Your task to perform on an android device: install app "Microsoft Authenticator" Image 0: 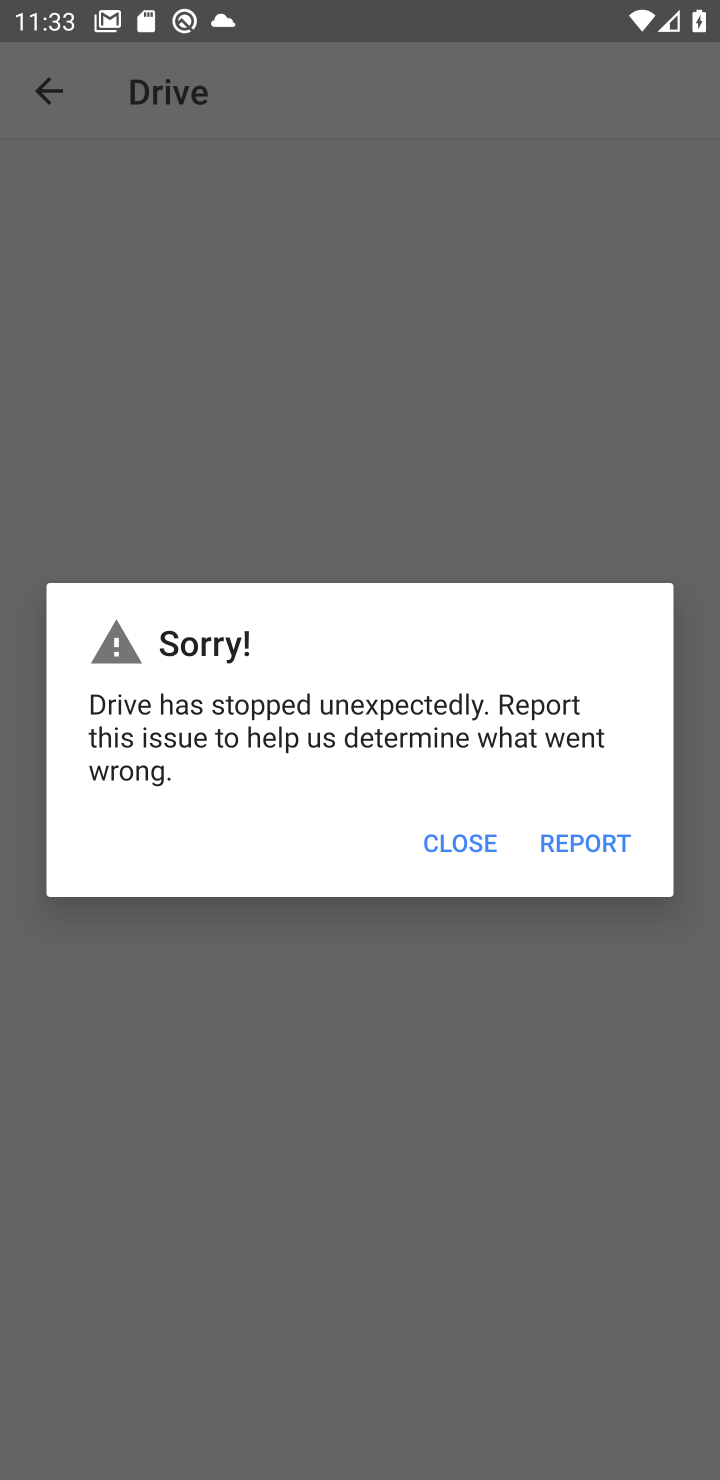
Step 0: press home button
Your task to perform on an android device: install app "Microsoft Authenticator" Image 1: 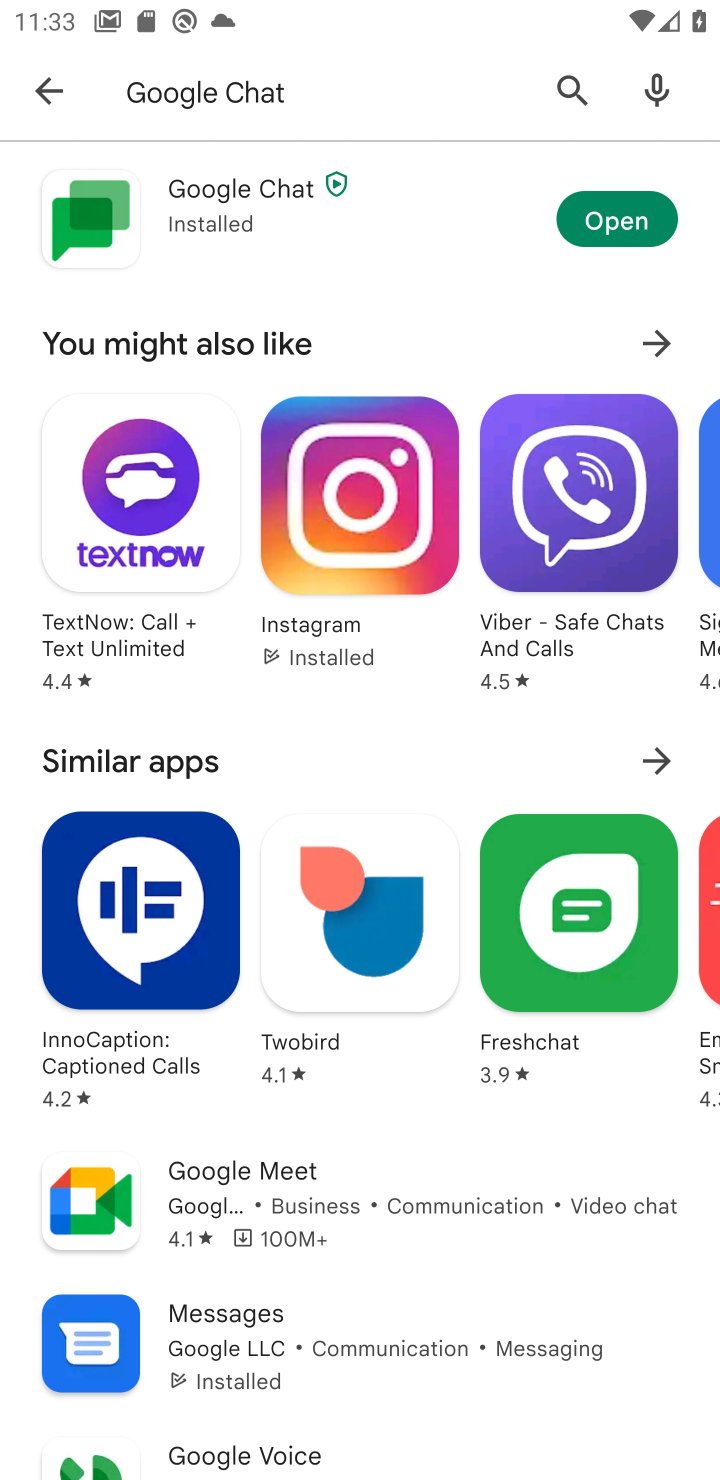
Step 1: press home button
Your task to perform on an android device: install app "Microsoft Authenticator" Image 2: 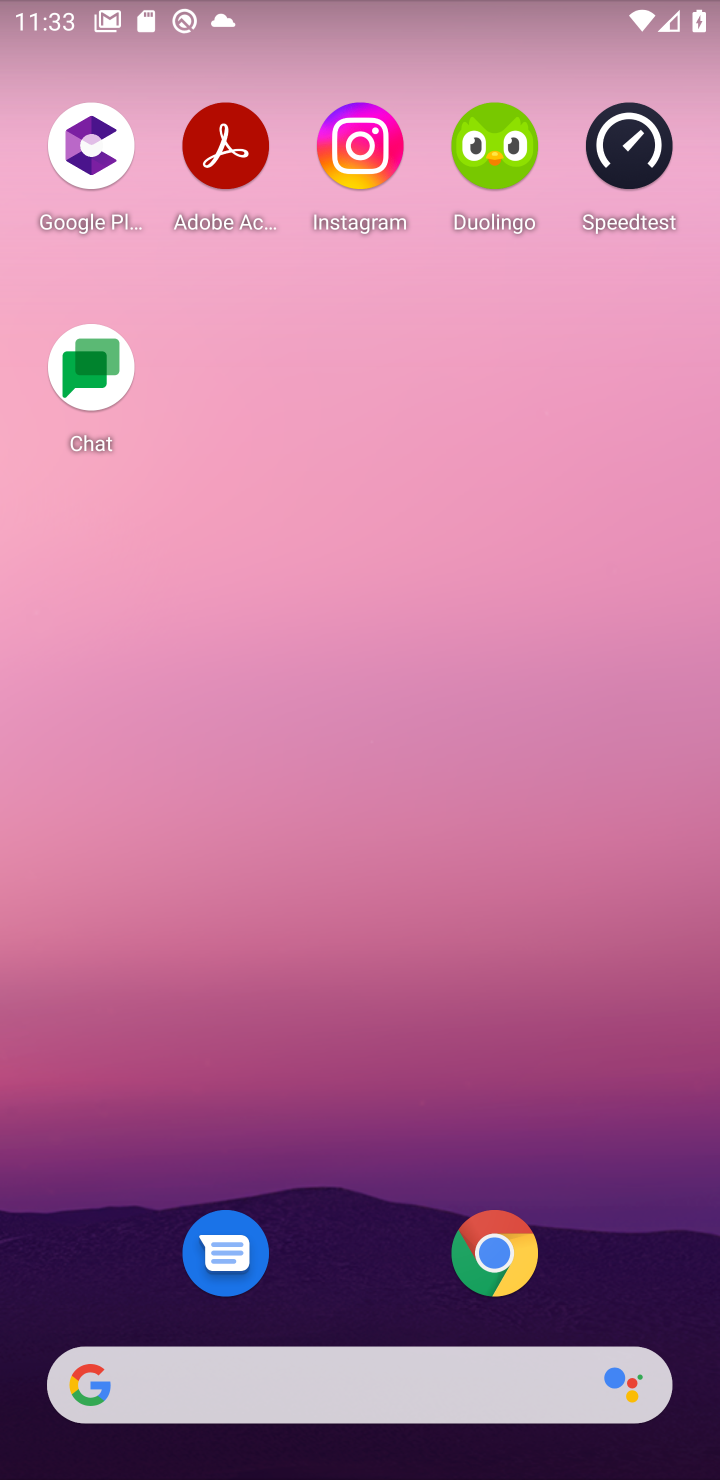
Step 2: press home button
Your task to perform on an android device: install app "Microsoft Authenticator" Image 3: 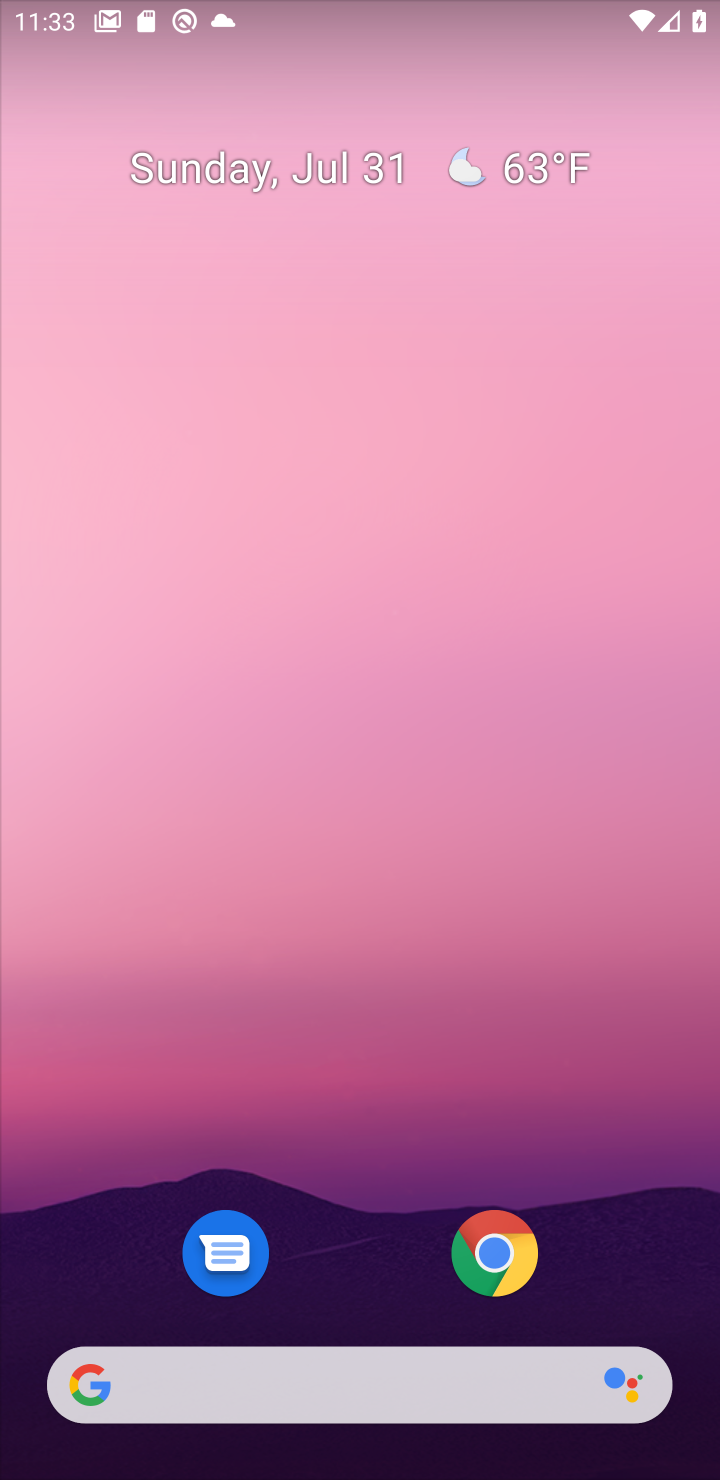
Step 3: drag from (340, 1217) to (435, 131)
Your task to perform on an android device: install app "Microsoft Authenticator" Image 4: 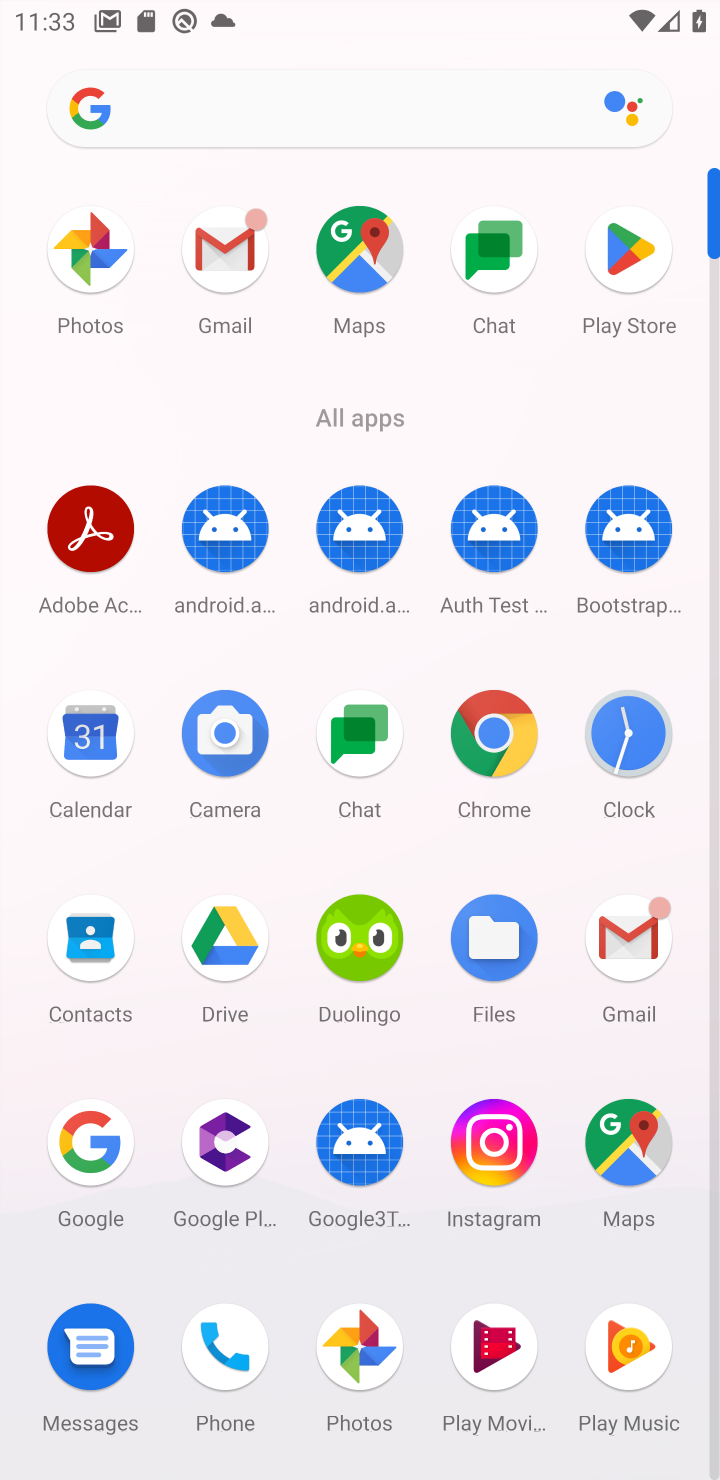
Step 4: click (632, 258)
Your task to perform on an android device: install app "Microsoft Authenticator" Image 5: 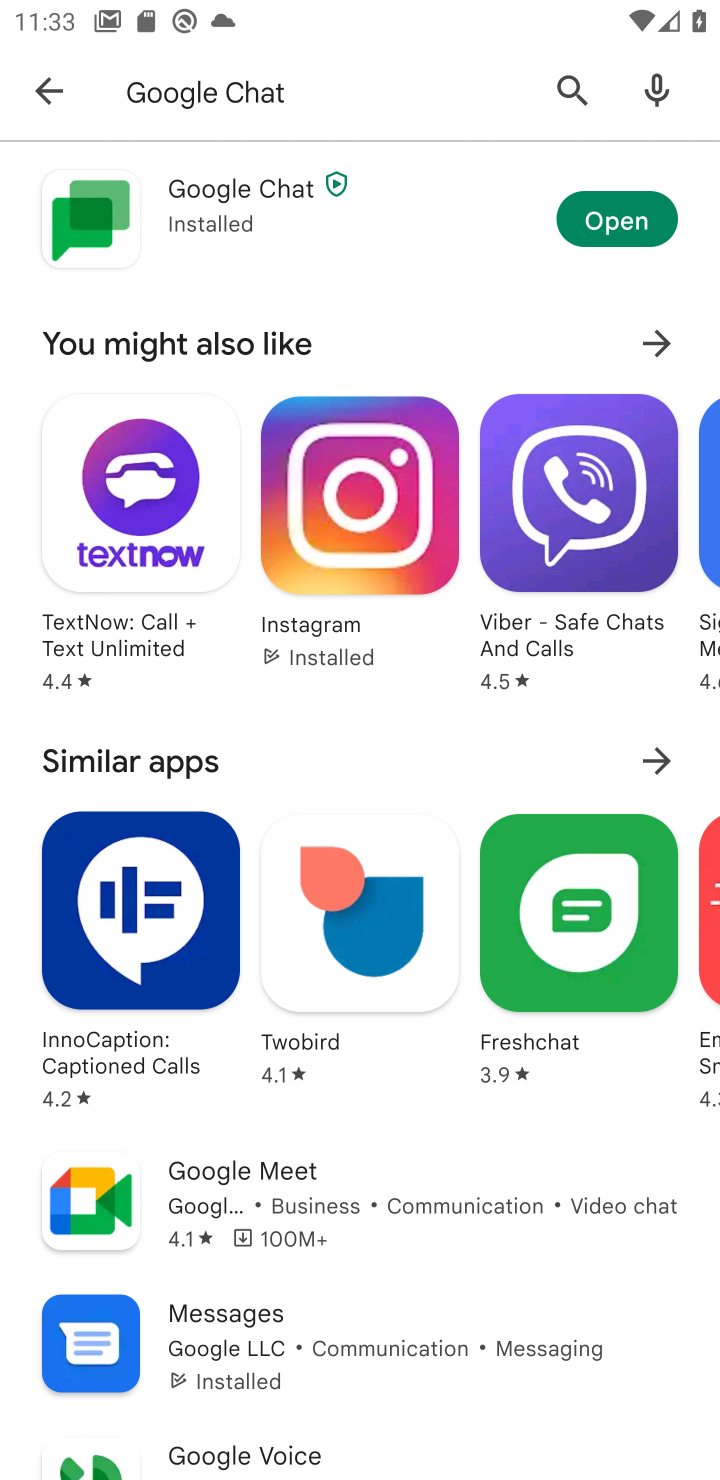
Step 5: click (392, 105)
Your task to perform on an android device: install app "Microsoft Authenticator" Image 6: 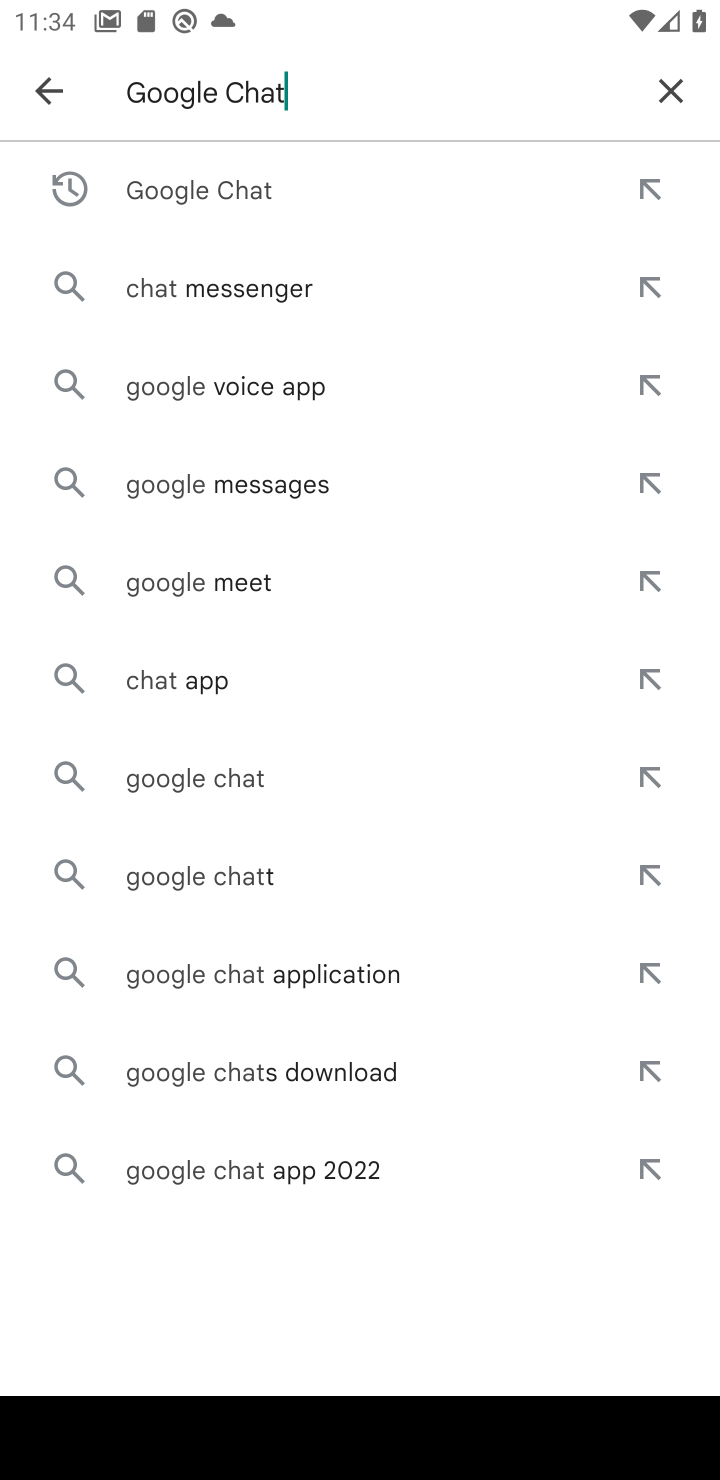
Step 6: click (664, 89)
Your task to perform on an android device: install app "Microsoft Authenticator" Image 7: 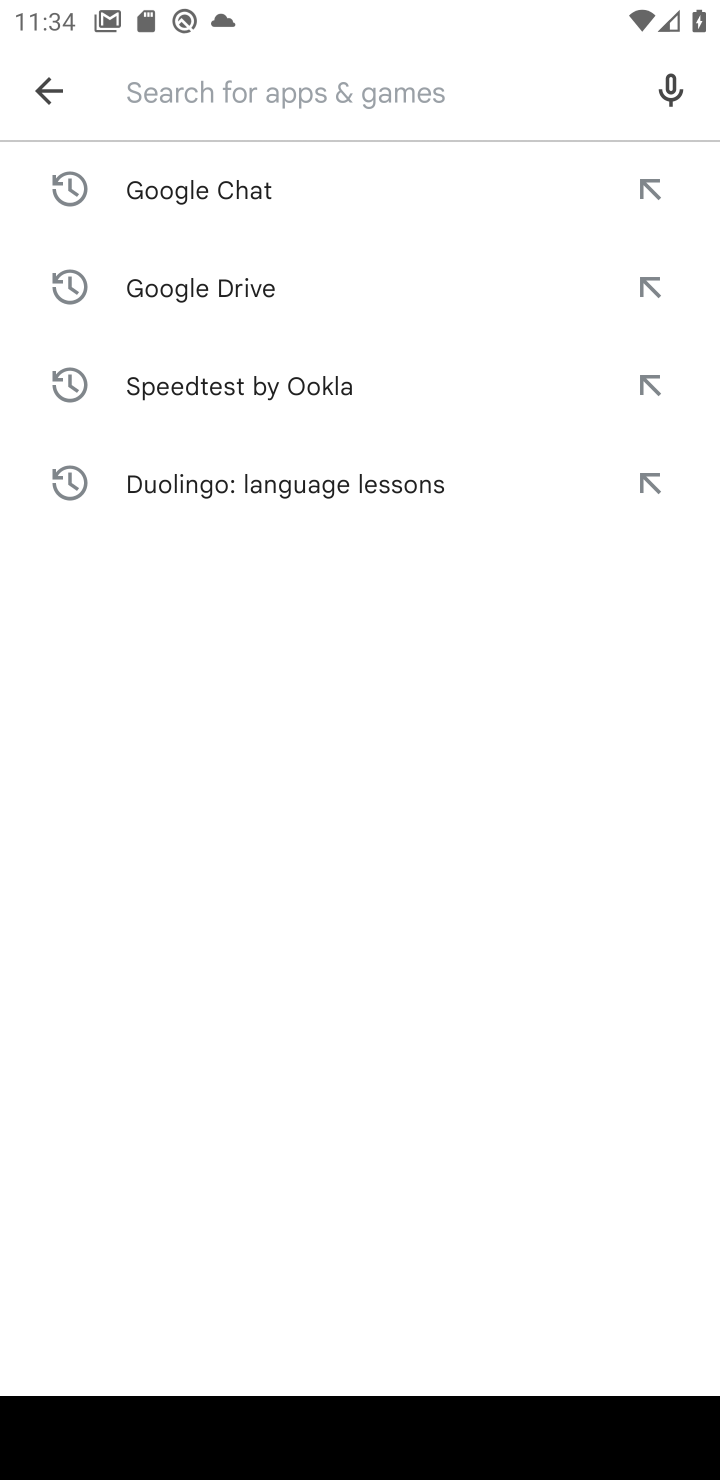
Step 7: type "Microsoft Authenticator"
Your task to perform on an android device: install app "Microsoft Authenticator" Image 8: 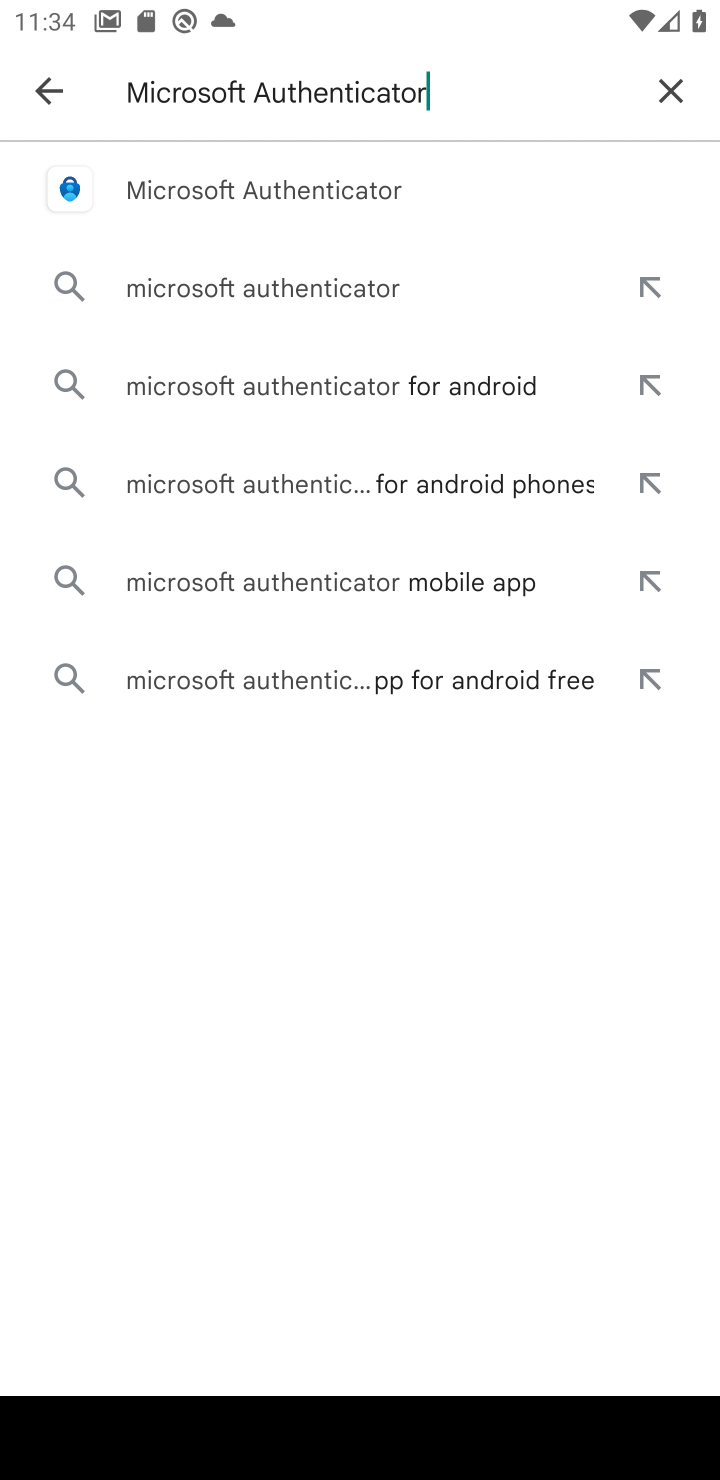
Step 8: press enter
Your task to perform on an android device: install app "Microsoft Authenticator" Image 9: 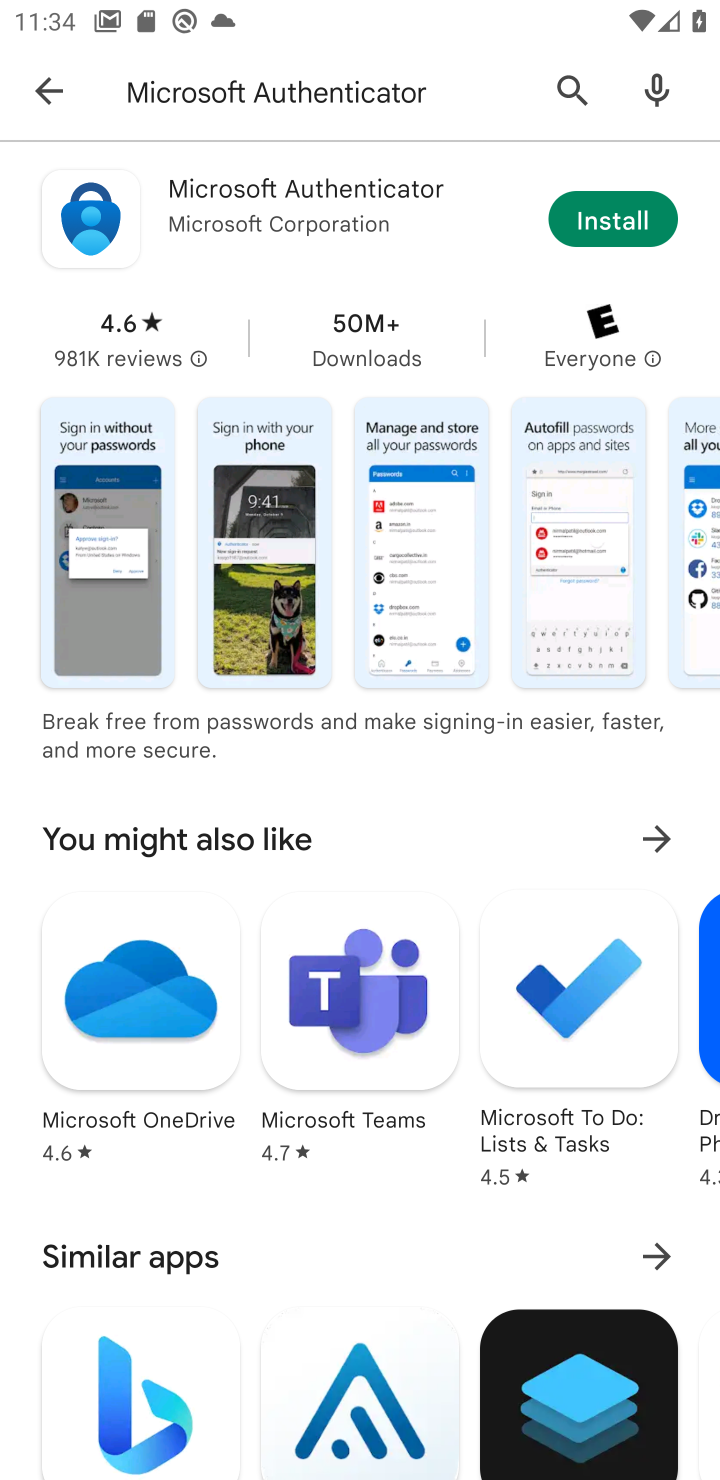
Step 9: click (626, 226)
Your task to perform on an android device: install app "Microsoft Authenticator" Image 10: 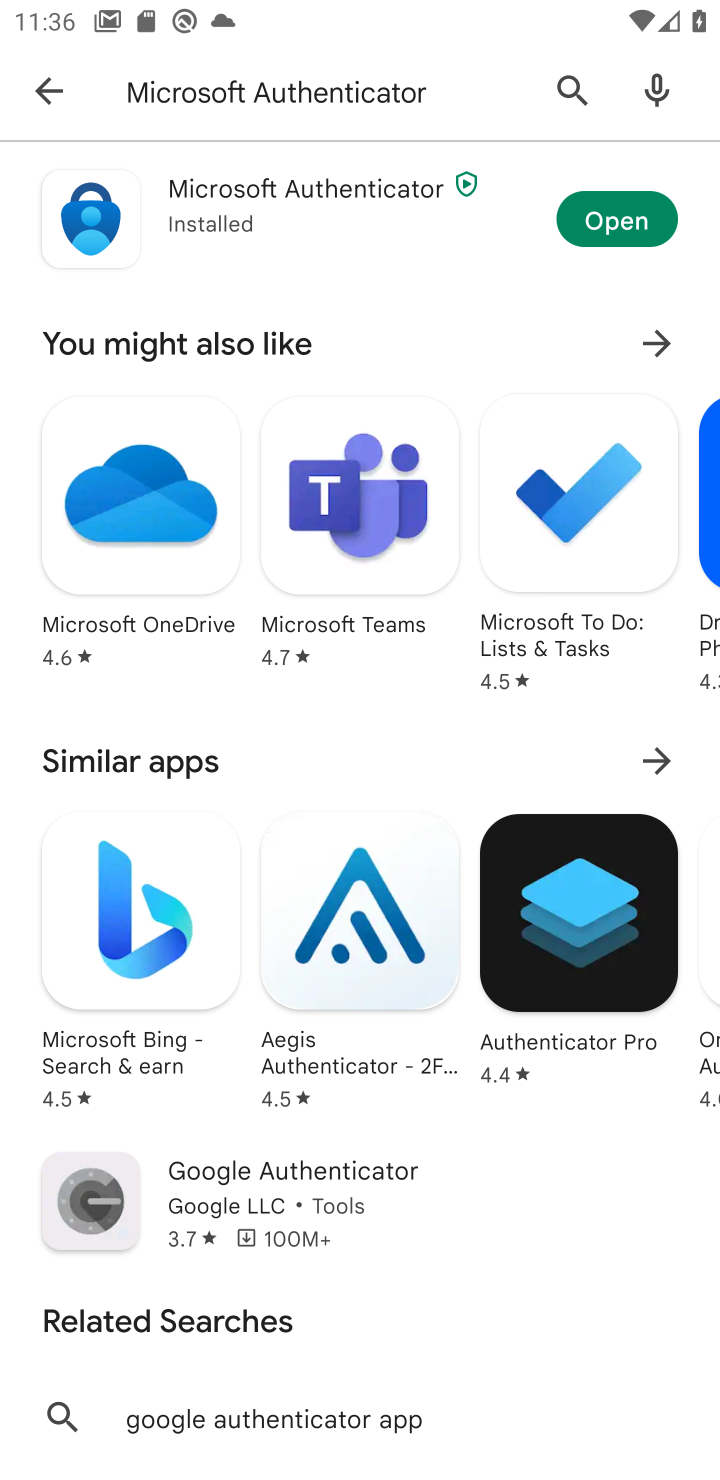
Step 10: task complete